Your task to perform on an android device: Go to Amazon Image 0: 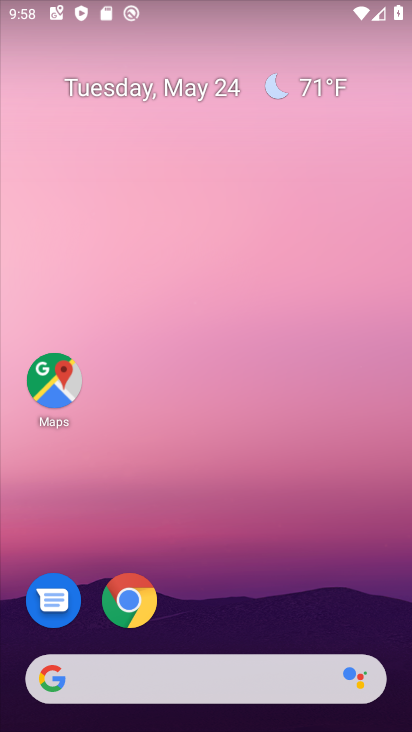
Step 0: click (150, 621)
Your task to perform on an android device: Go to Amazon Image 1: 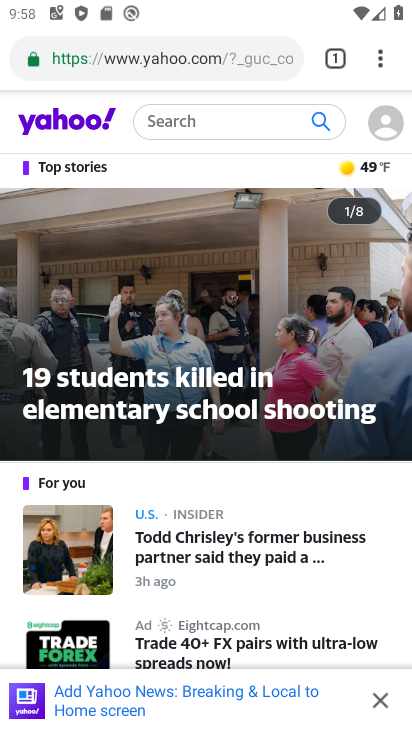
Step 1: press back button
Your task to perform on an android device: Go to Amazon Image 2: 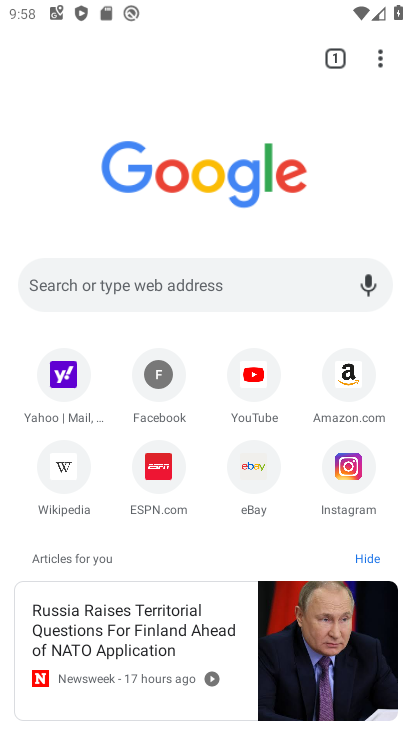
Step 2: click (360, 380)
Your task to perform on an android device: Go to Amazon Image 3: 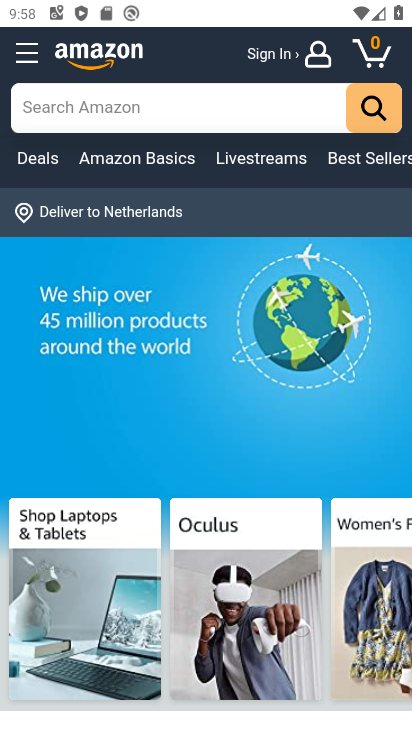
Step 3: task complete